Your task to perform on an android device: Do I have any events today? Image 0: 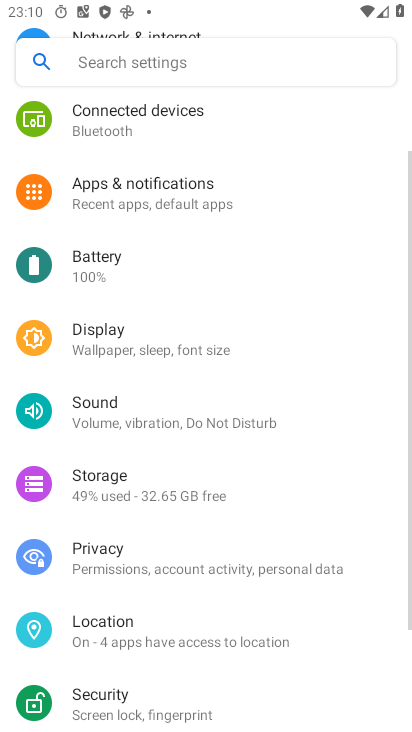
Step 0: press home button
Your task to perform on an android device: Do I have any events today? Image 1: 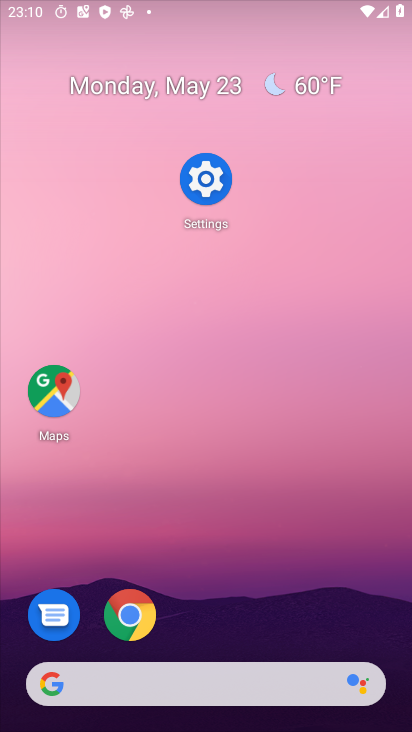
Step 1: drag from (230, 606) to (329, 37)
Your task to perform on an android device: Do I have any events today? Image 2: 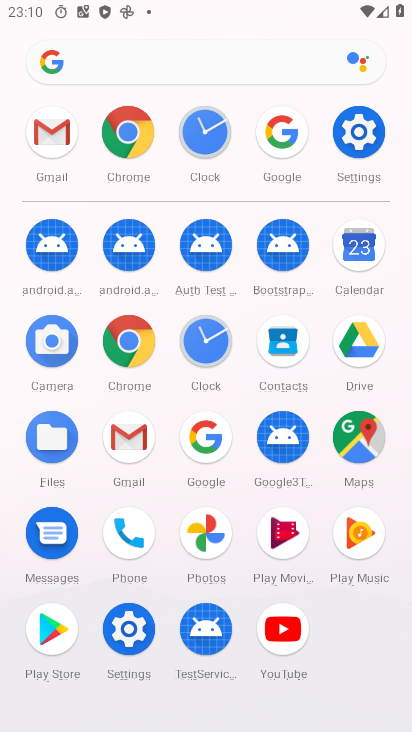
Step 2: click (358, 246)
Your task to perform on an android device: Do I have any events today? Image 3: 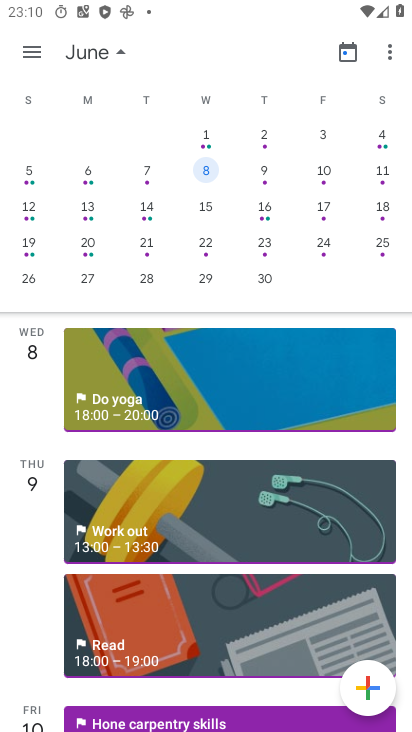
Step 3: drag from (23, 289) to (404, 270)
Your task to perform on an android device: Do I have any events today? Image 4: 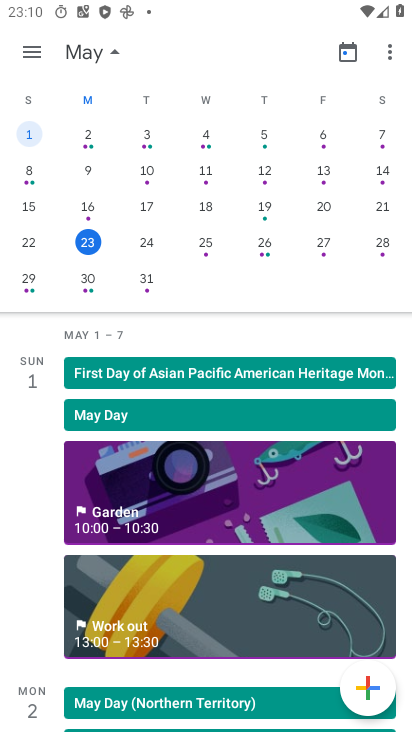
Step 4: click (89, 242)
Your task to perform on an android device: Do I have any events today? Image 5: 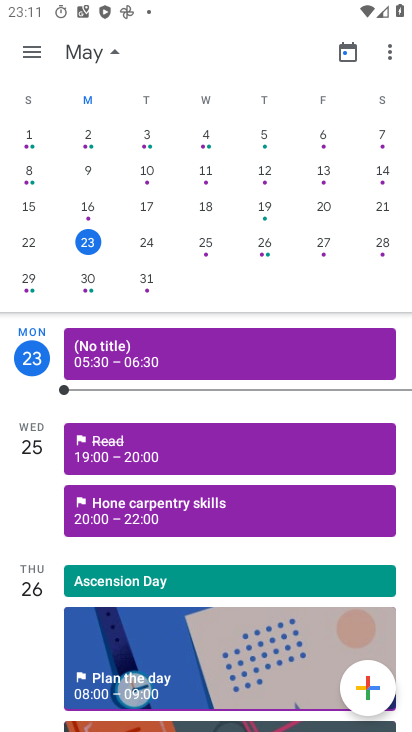
Step 5: task complete